Your task to perform on an android device: open chrome privacy settings Image 0: 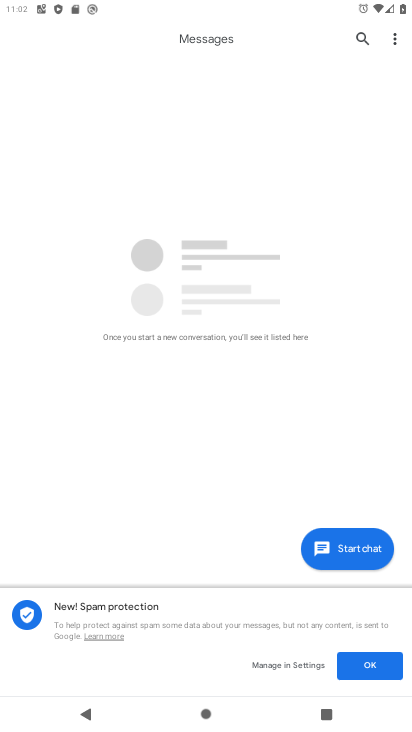
Step 0: press home button
Your task to perform on an android device: open chrome privacy settings Image 1: 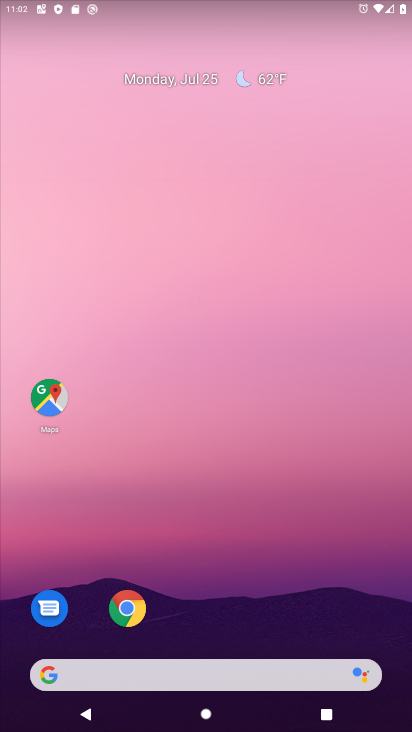
Step 1: click (136, 614)
Your task to perform on an android device: open chrome privacy settings Image 2: 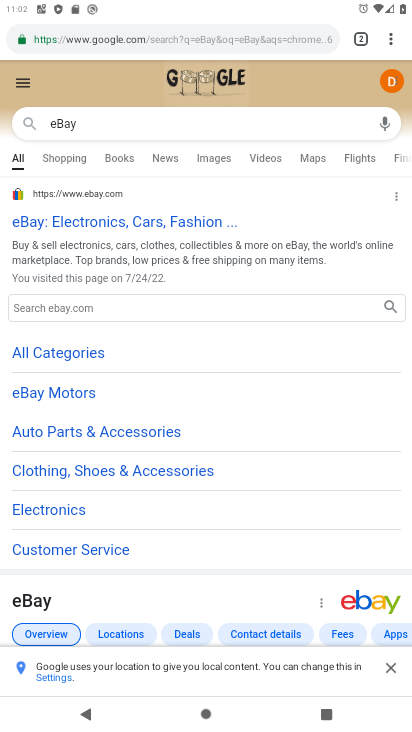
Step 2: click (390, 39)
Your task to perform on an android device: open chrome privacy settings Image 3: 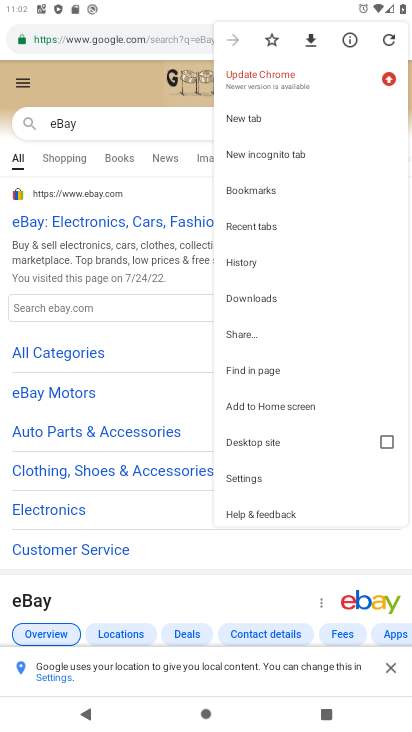
Step 3: click (250, 473)
Your task to perform on an android device: open chrome privacy settings Image 4: 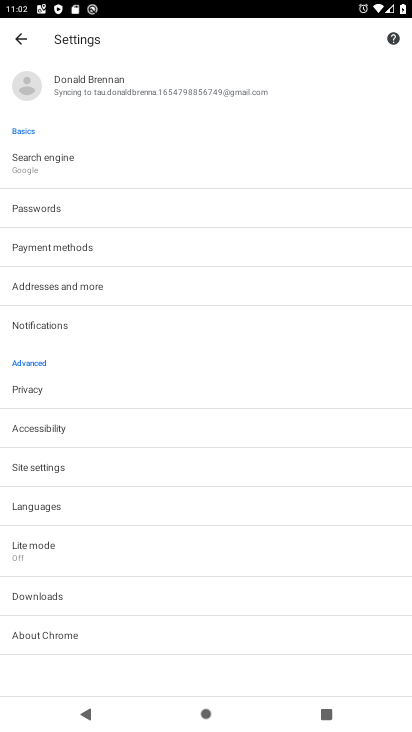
Step 4: click (32, 384)
Your task to perform on an android device: open chrome privacy settings Image 5: 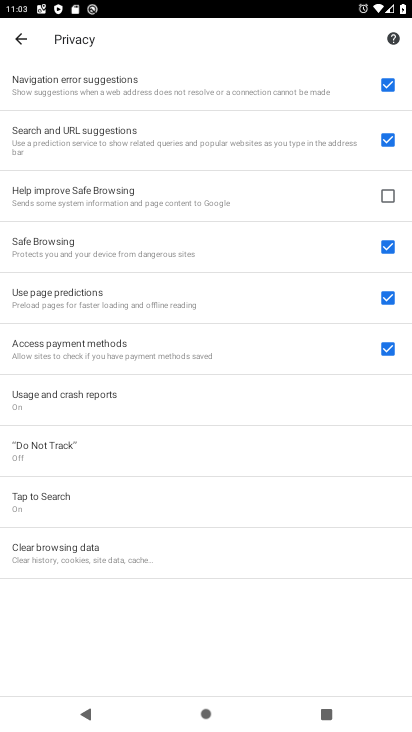
Step 5: task complete